Your task to perform on an android device: Go to network settings Image 0: 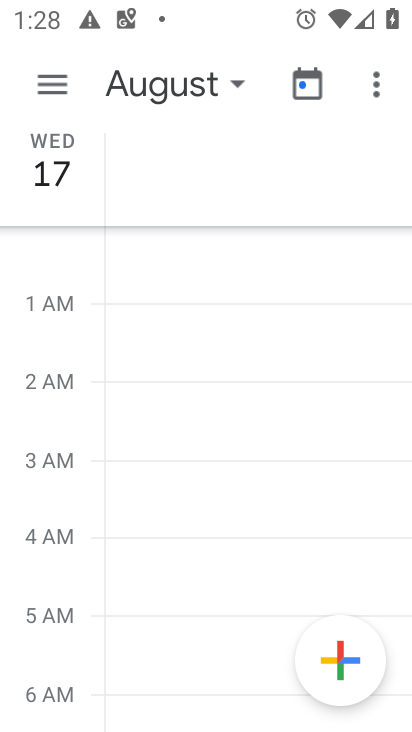
Step 0: press home button
Your task to perform on an android device: Go to network settings Image 1: 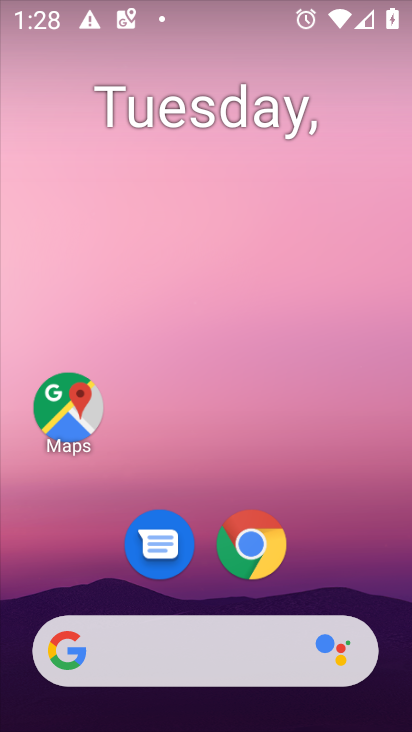
Step 1: drag from (303, 406) to (286, 43)
Your task to perform on an android device: Go to network settings Image 2: 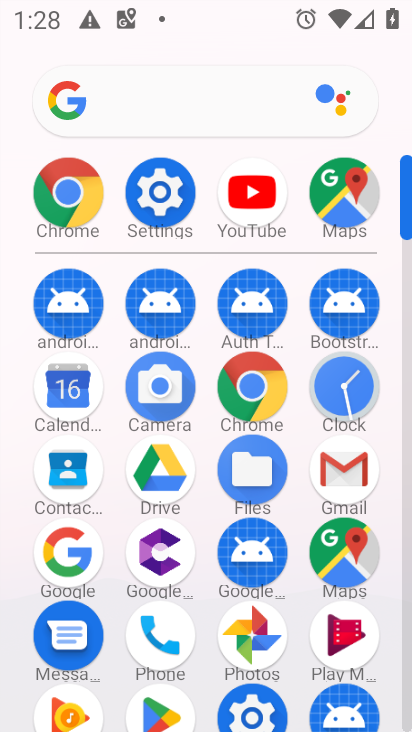
Step 2: click (152, 181)
Your task to perform on an android device: Go to network settings Image 3: 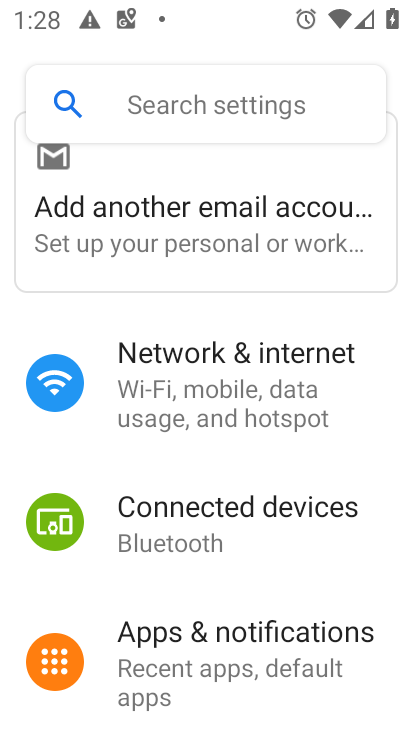
Step 3: click (227, 383)
Your task to perform on an android device: Go to network settings Image 4: 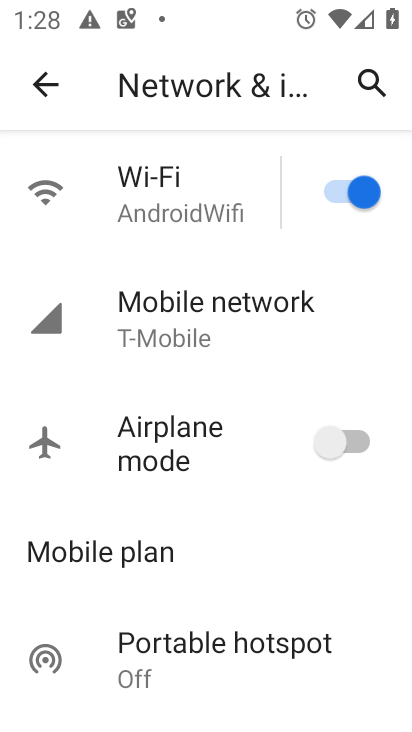
Step 4: task complete